Your task to perform on an android device: Open Google Chrome and click the shortcut for Amazon.com Image 0: 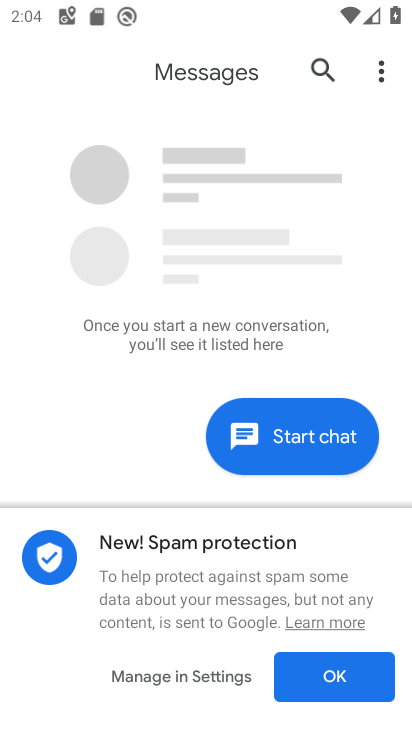
Step 0: press home button
Your task to perform on an android device: Open Google Chrome and click the shortcut for Amazon.com Image 1: 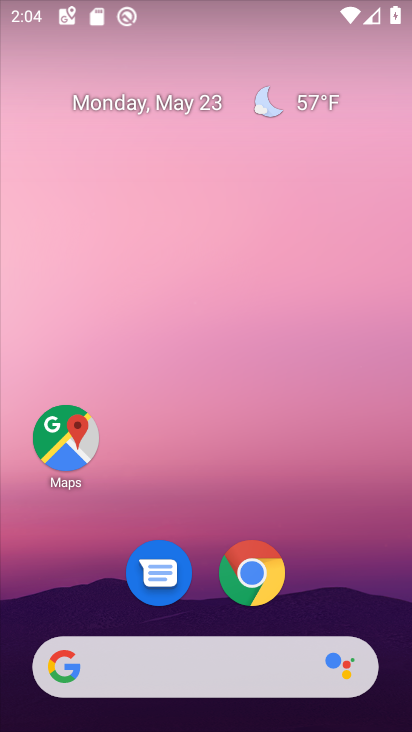
Step 1: click (273, 581)
Your task to perform on an android device: Open Google Chrome and click the shortcut for Amazon.com Image 2: 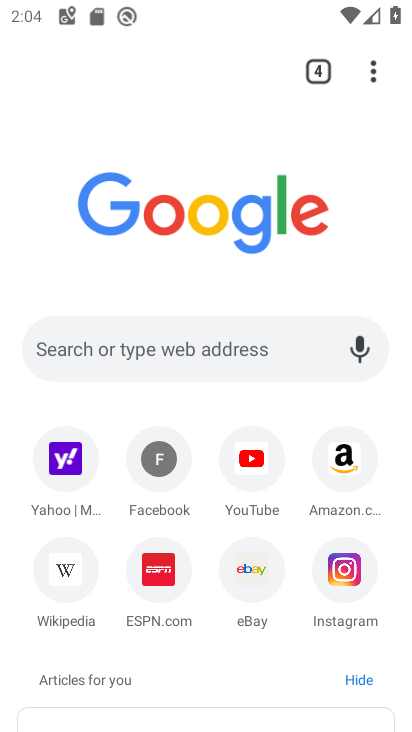
Step 2: click (328, 471)
Your task to perform on an android device: Open Google Chrome and click the shortcut for Amazon.com Image 3: 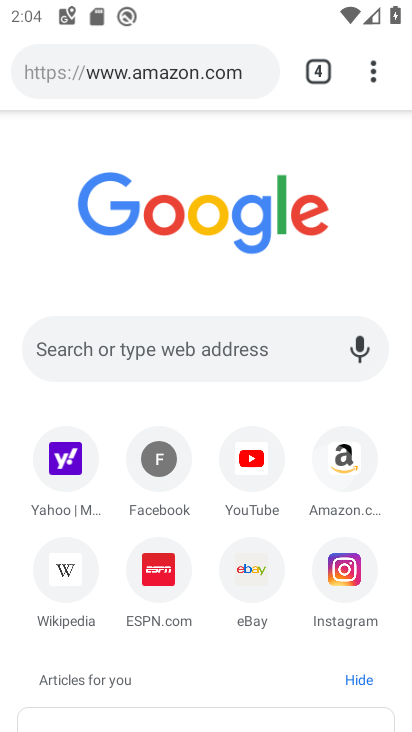
Step 3: click (328, 471)
Your task to perform on an android device: Open Google Chrome and click the shortcut for Amazon.com Image 4: 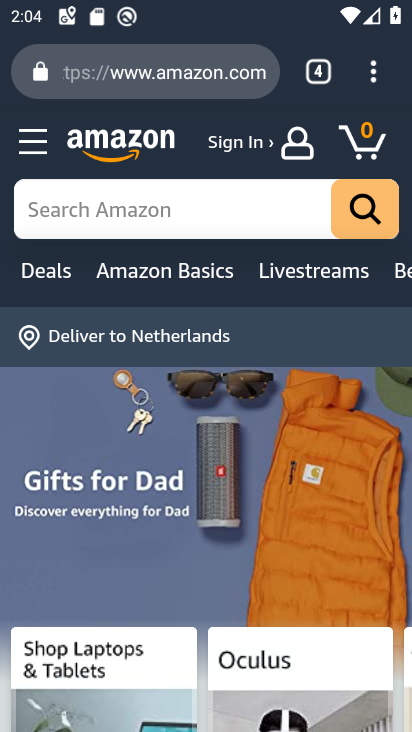
Step 4: task complete